Your task to perform on an android device: toggle notification dots Image 0: 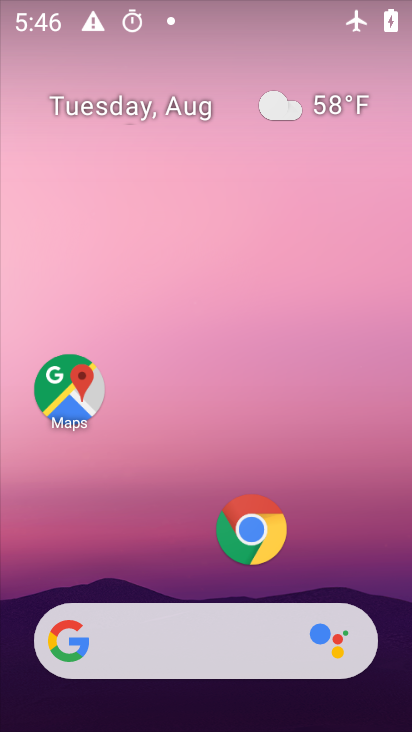
Step 0: drag from (162, 568) to (154, 215)
Your task to perform on an android device: toggle notification dots Image 1: 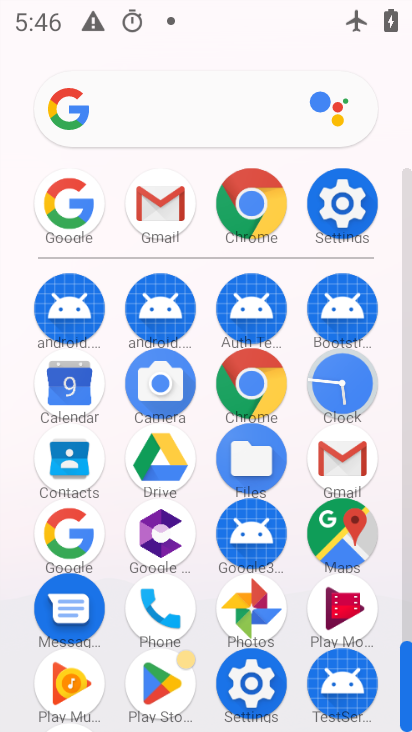
Step 1: click (317, 219)
Your task to perform on an android device: toggle notification dots Image 2: 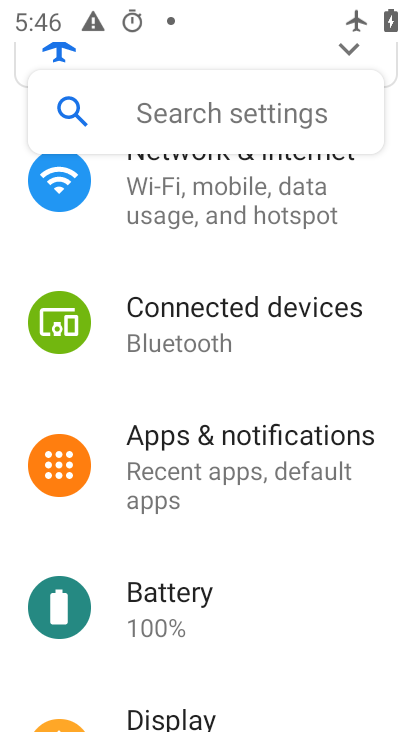
Step 2: click (261, 425)
Your task to perform on an android device: toggle notification dots Image 3: 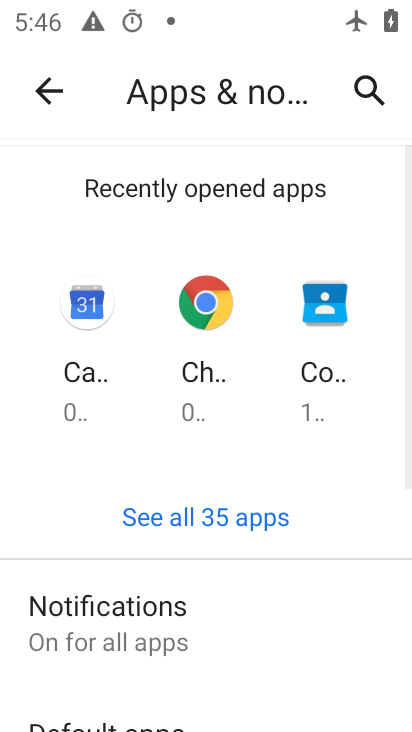
Step 3: drag from (178, 649) to (224, 317)
Your task to perform on an android device: toggle notification dots Image 4: 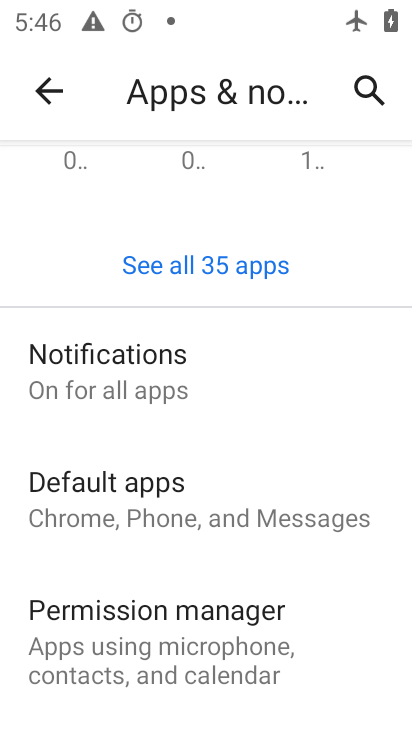
Step 4: click (191, 373)
Your task to perform on an android device: toggle notification dots Image 5: 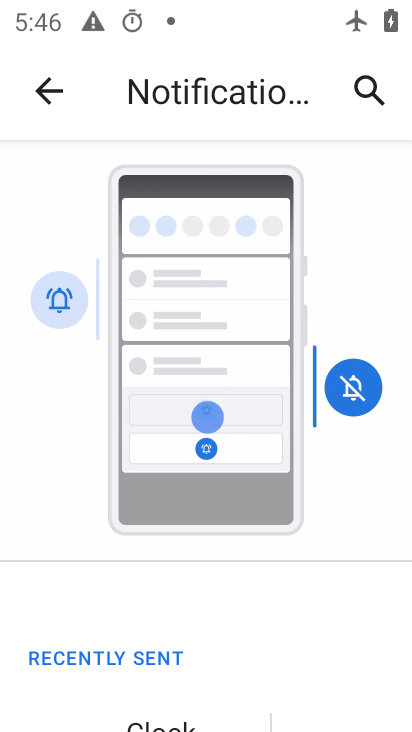
Step 5: drag from (154, 657) to (164, 295)
Your task to perform on an android device: toggle notification dots Image 6: 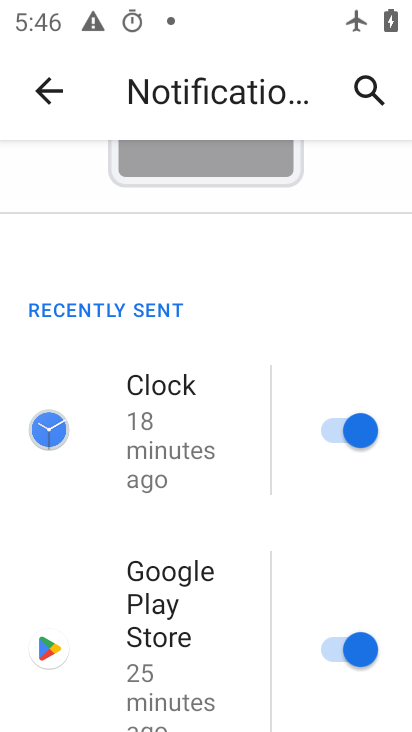
Step 6: drag from (211, 580) to (240, 267)
Your task to perform on an android device: toggle notification dots Image 7: 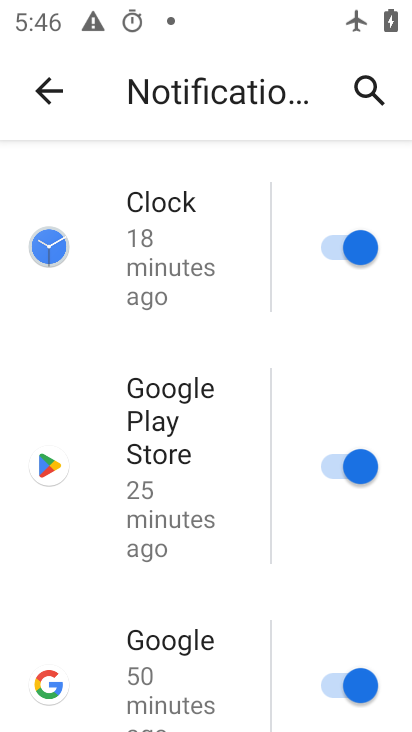
Step 7: drag from (235, 551) to (236, 264)
Your task to perform on an android device: toggle notification dots Image 8: 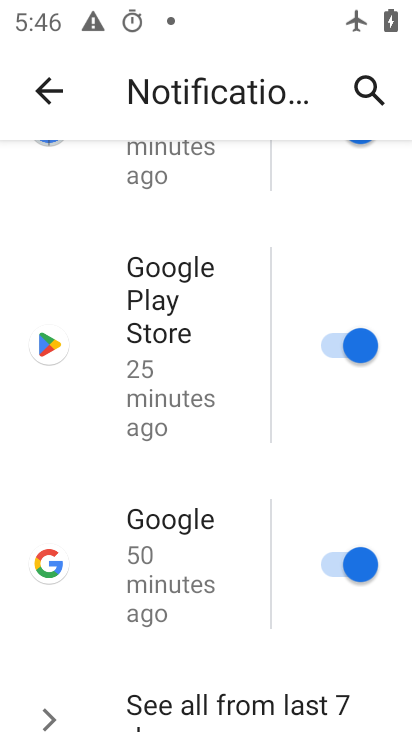
Step 8: drag from (269, 514) to (269, 219)
Your task to perform on an android device: toggle notification dots Image 9: 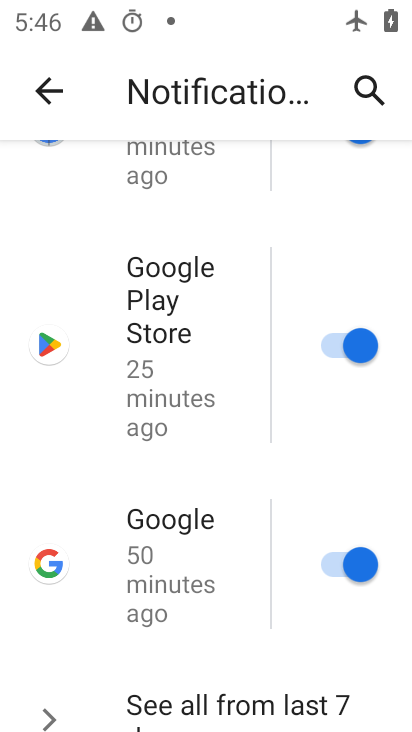
Step 9: drag from (263, 593) to (263, 297)
Your task to perform on an android device: toggle notification dots Image 10: 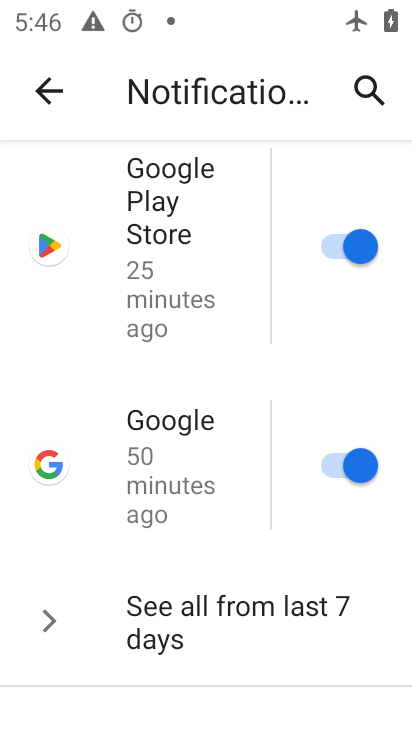
Step 10: drag from (274, 636) to (252, 285)
Your task to perform on an android device: toggle notification dots Image 11: 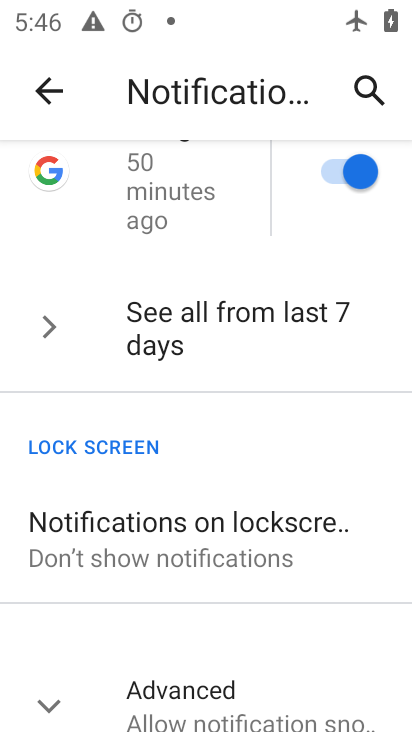
Step 11: drag from (244, 556) to (240, 233)
Your task to perform on an android device: toggle notification dots Image 12: 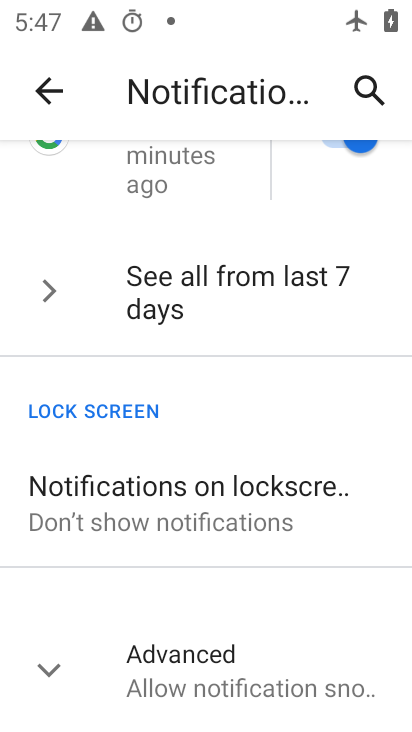
Step 12: click (198, 675)
Your task to perform on an android device: toggle notification dots Image 13: 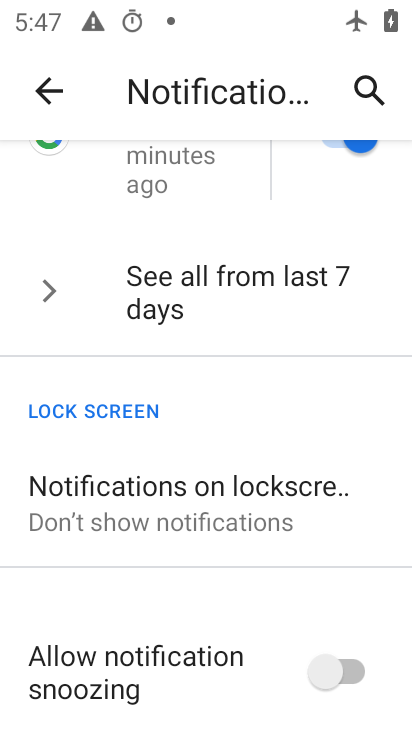
Step 13: drag from (265, 656) to (267, 252)
Your task to perform on an android device: toggle notification dots Image 14: 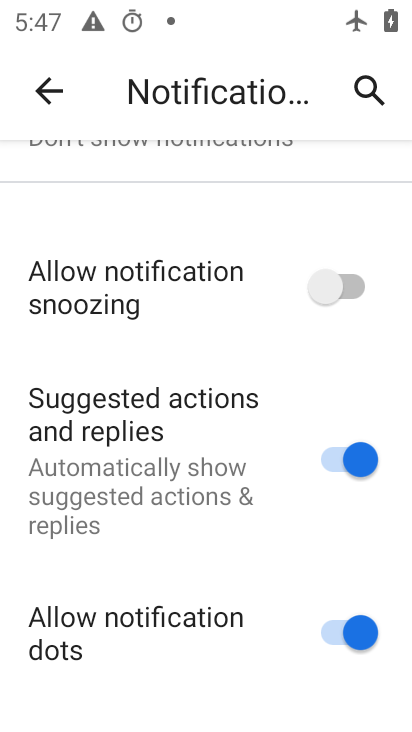
Step 14: drag from (255, 641) to (255, 281)
Your task to perform on an android device: toggle notification dots Image 15: 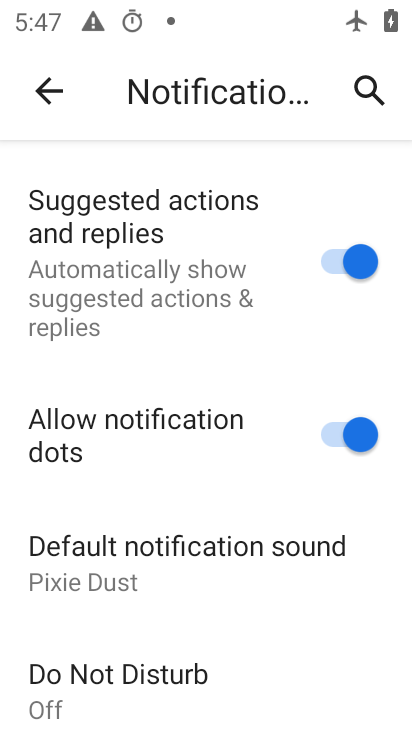
Step 15: drag from (263, 634) to (272, 348)
Your task to perform on an android device: toggle notification dots Image 16: 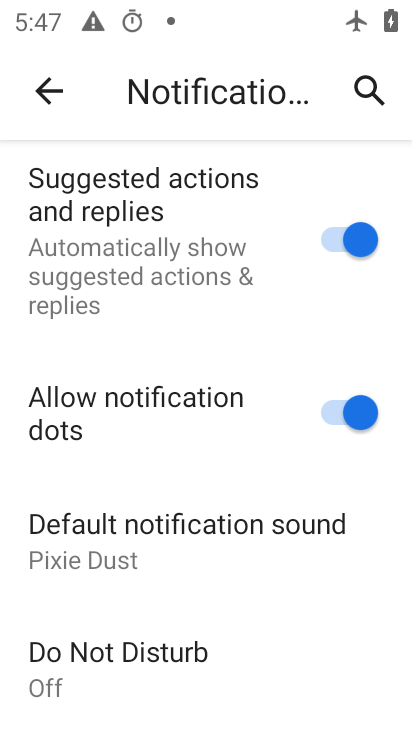
Step 16: drag from (197, 450) to (195, 627)
Your task to perform on an android device: toggle notification dots Image 17: 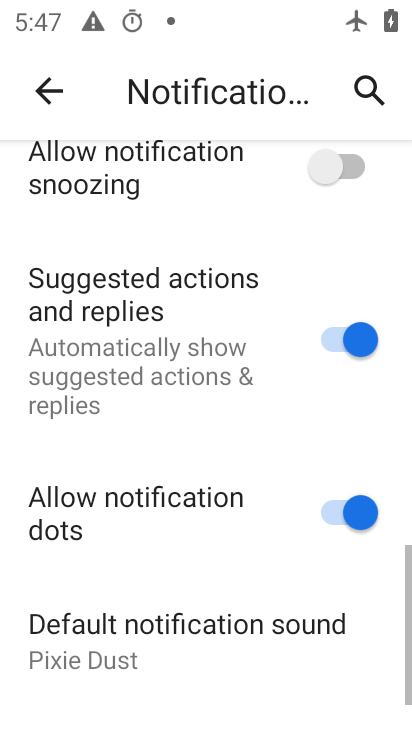
Step 17: drag from (189, 308) to (191, 625)
Your task to perform on an android device: toggle notification dots Image 18: 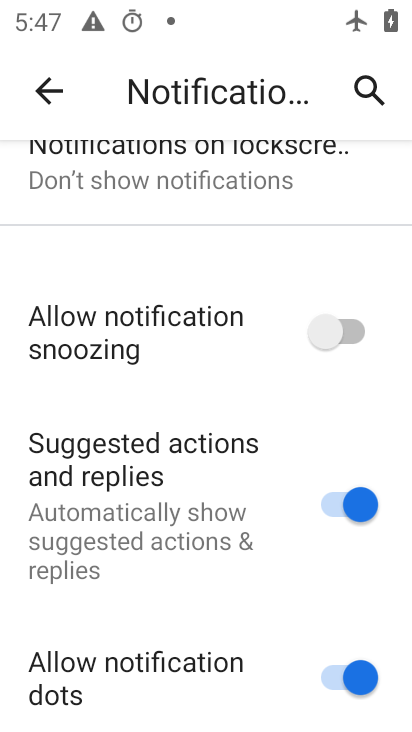
Step 18: drag from (239, 252) to (240, 570)
Your task to perform on an android device: toggle notification dots Image 19: 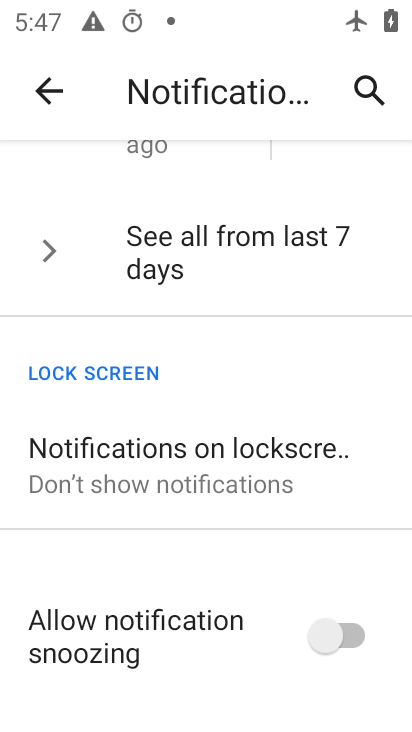
Step 19: drag from (217, 669) to (234, 302)
Your task to perform on an android device: toggle notification dots Image 20: 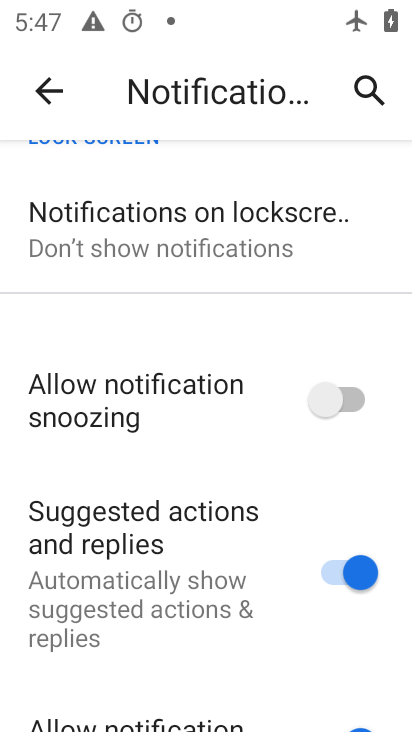
Step 20: drag from (220, 591) to (232, 308)
Your task to perform on an android device: toggle notification dots Image 21: 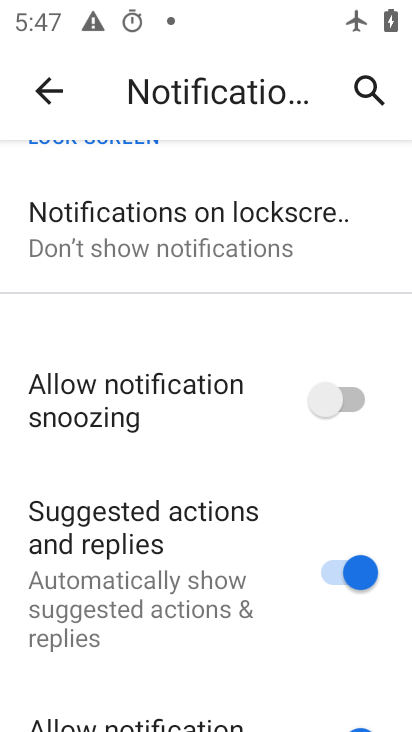
Step 21: drag from (229, 584) to (264, 270)
Your task to perform on an android device: toggle notification dots Image 22: 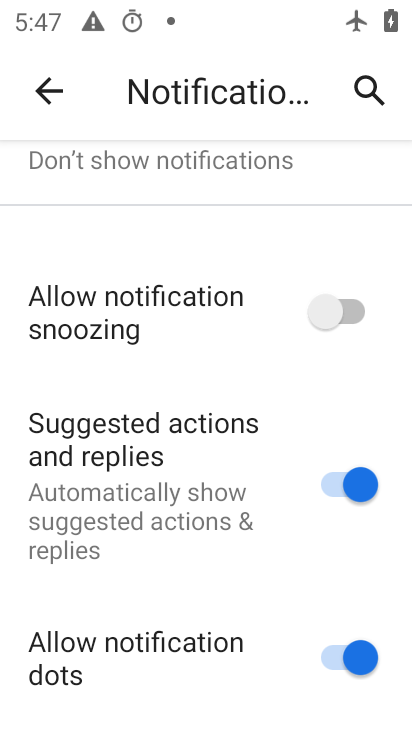
Step 22: click (335, 656)
Your task to perform on an android device: toggle notification dots Image 23: 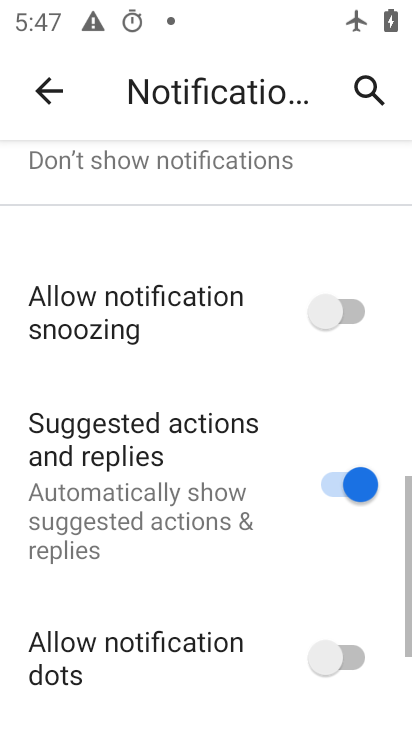
Step 23: task complete